Your task to perform on an android device: turn off sleep mode Image 0: 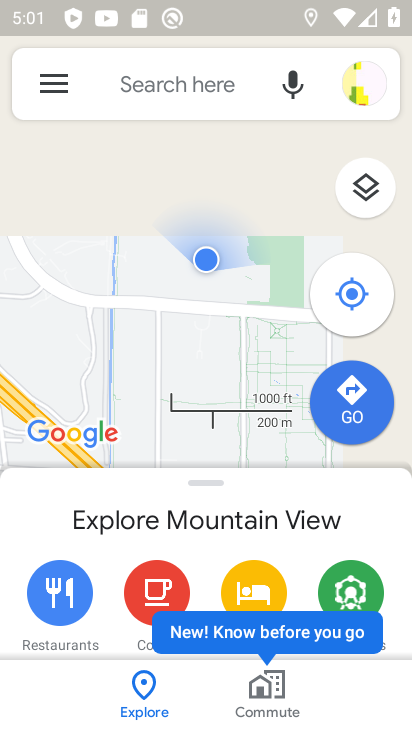
Step 0: press home button
Your task to perform on an android device: turn off sleep mode Image 1: 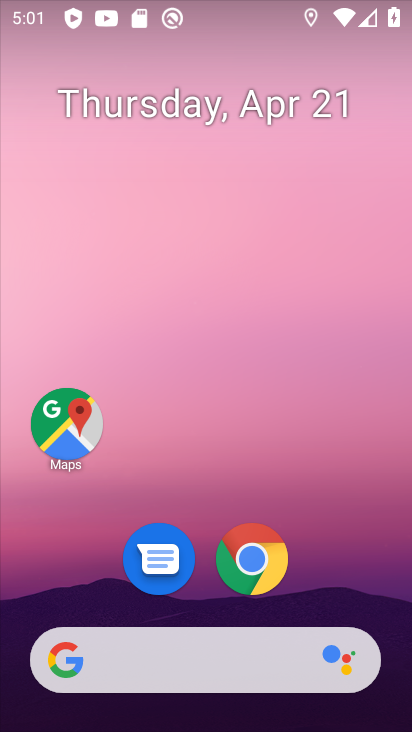
Step 1: drag from (348, 544) to (399, 143)
Your task to perform on an android device: turn off sleep mode Image 2: 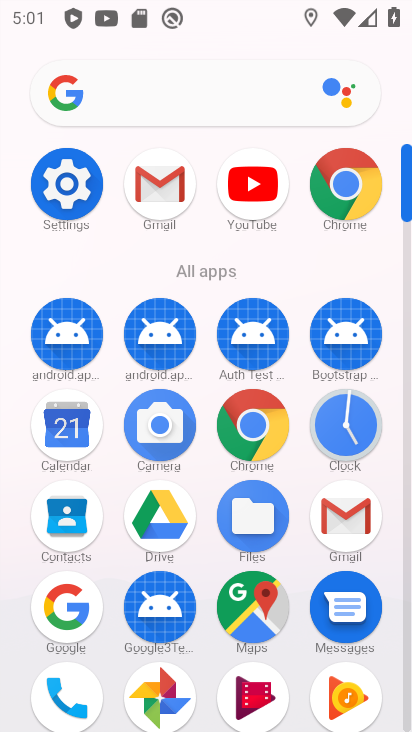
Step 2: click (81, 195)
Your task to perform on an android device: turn off sleep mode Image 3: 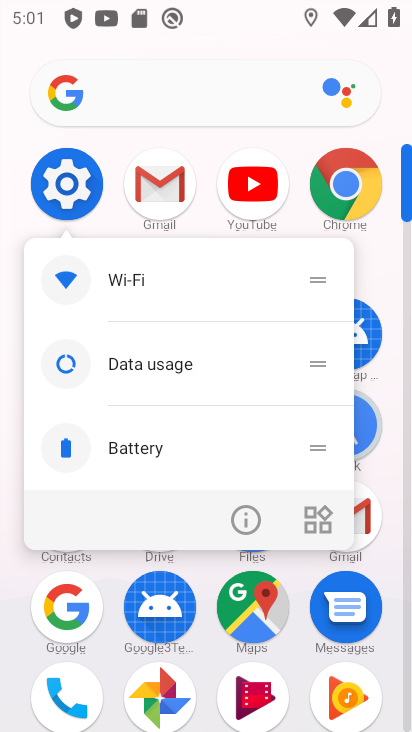
Step 3: click (81, 195)
Your task to perform on an android device: turn off sleep mode Image 4: 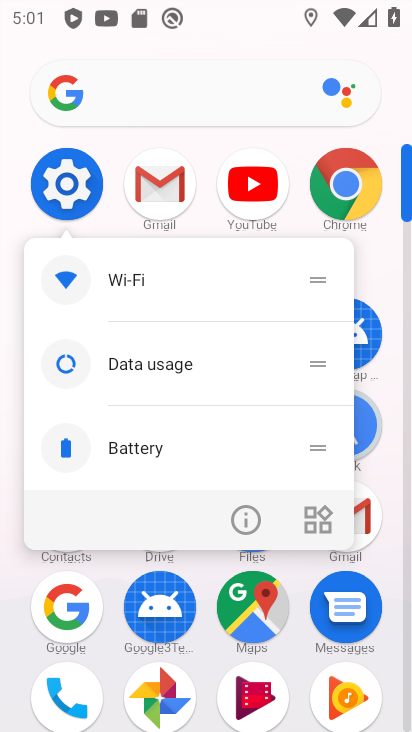
Step 4: click (81, 194)
Your task to perform on an android device: turn off sleep mode Image 5: 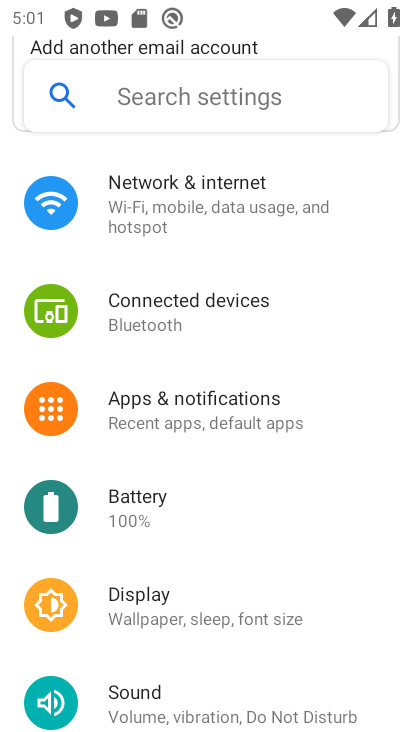
Step 5: drag from (179, 312) to (218, 560)
Your task to perform on an android device: turn off sleep mode Image 6: 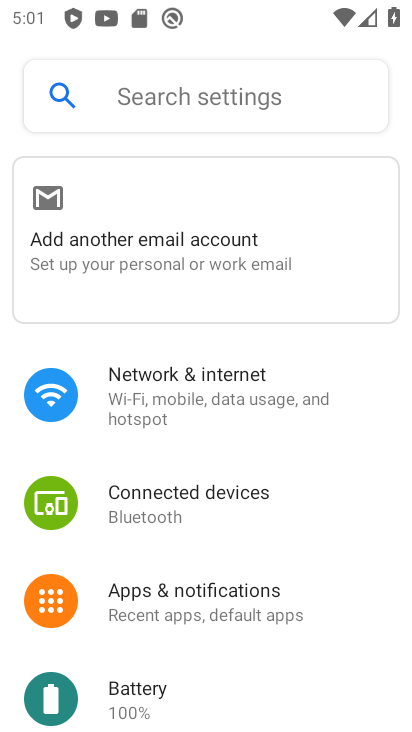
Step 6: drag from (214, 627) to (251, 229)
Your task to perform on an android device: turn off sleep mode Image 7: 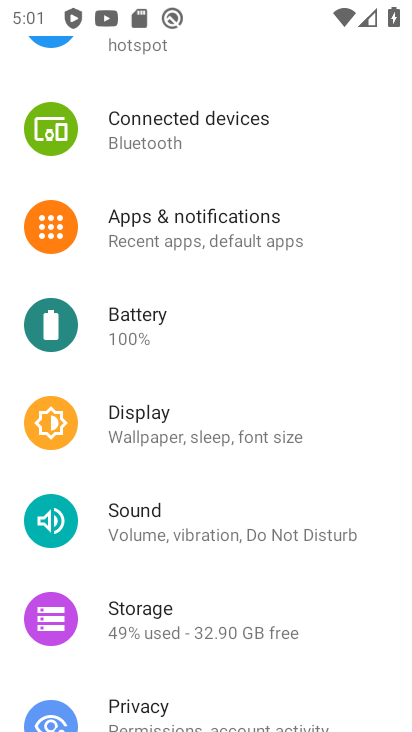
Step 7: drag from (249, 603) to (299, 248)
Your task to perform on an android device: turn off sleep mode Image 8: 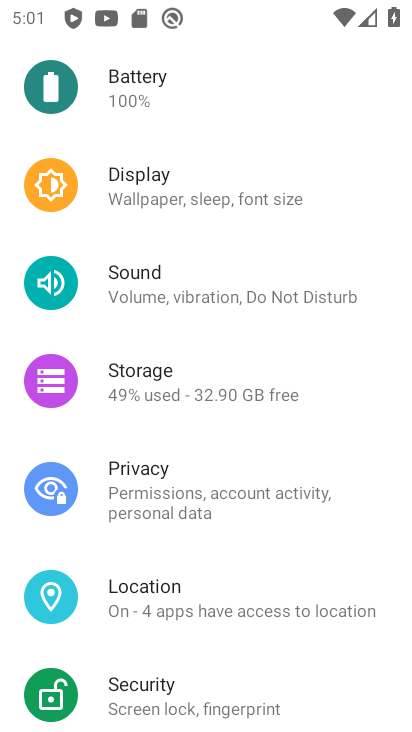
Step 8: click (255, 202)
Your task to perform on an android device: turn off sleep mode Image 9: 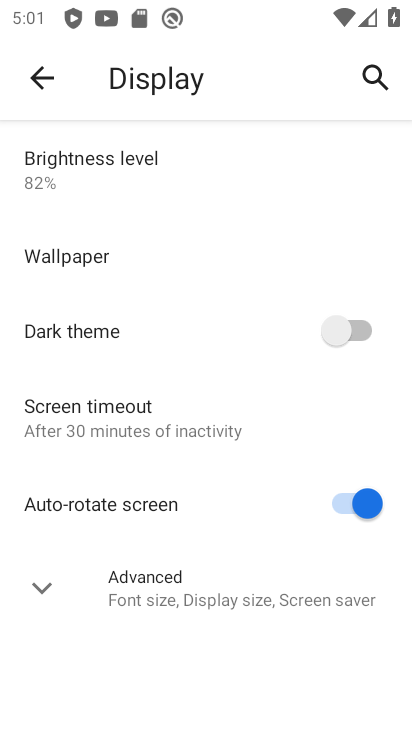
Step 9: click (96, 429)
Your task to perform on an android device: turn off sleep mode Image 10: 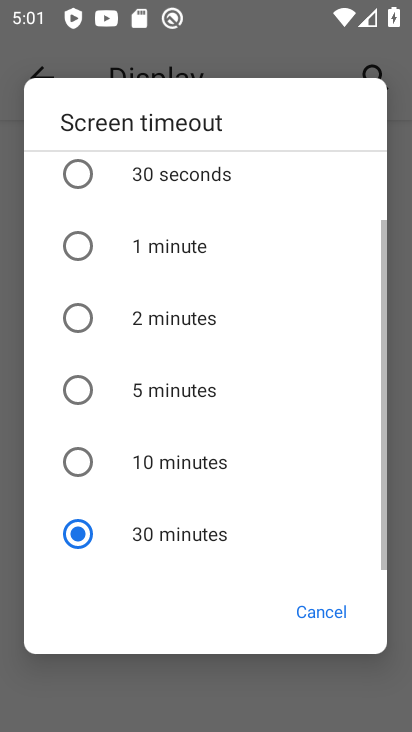
Step 10: task complete